Your task to perform on an android device: make emails show in primary in the gmail app Image 0: 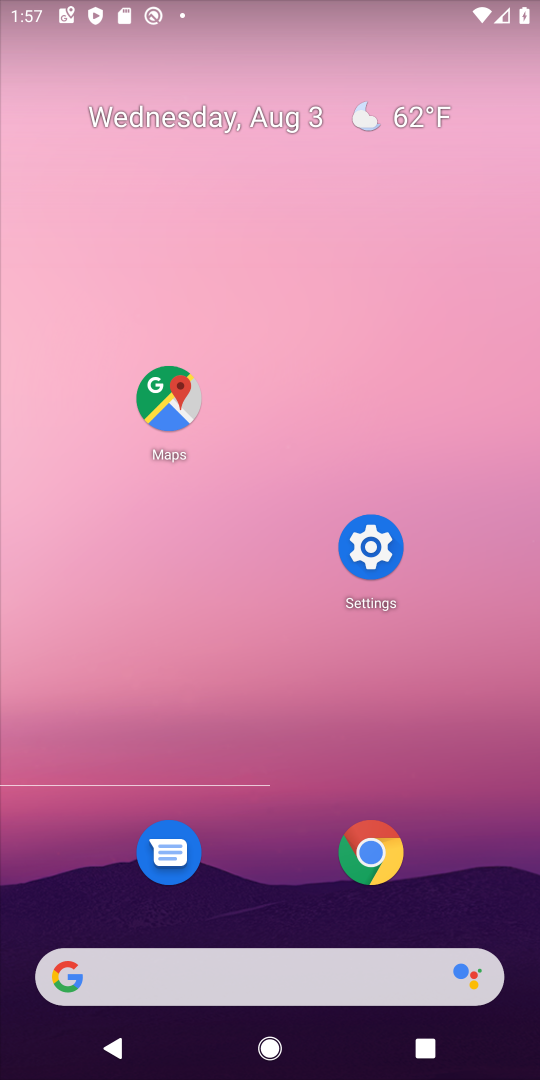
Step 0: press home button
Your task to perform on an android device: make emails show in primary in the gmail app Image 1: 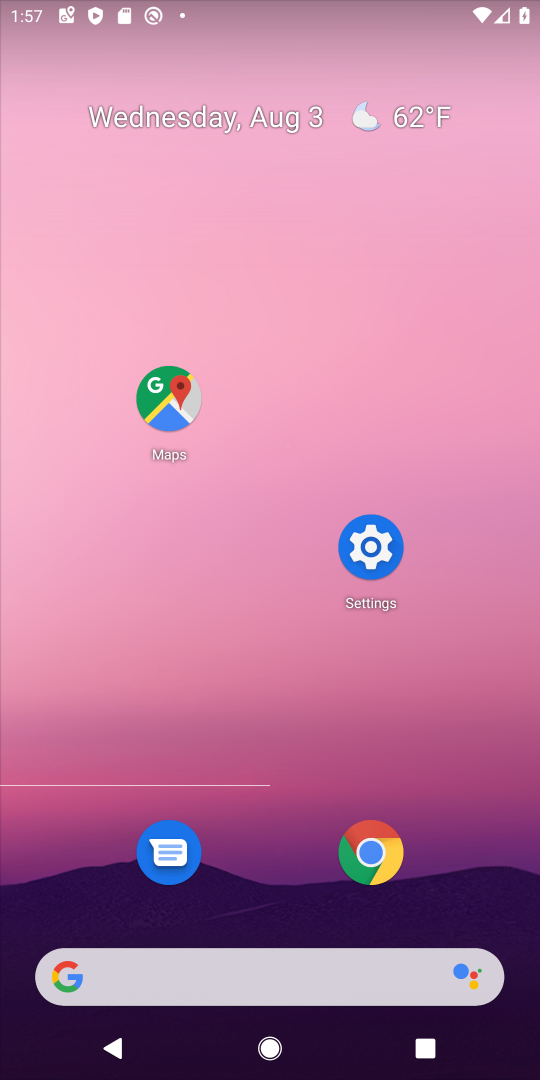
Step 1: drag from (306, 976) to (420, 111)
Your task to perform on an android device: make emails show in primary in the gmail app Image 2: 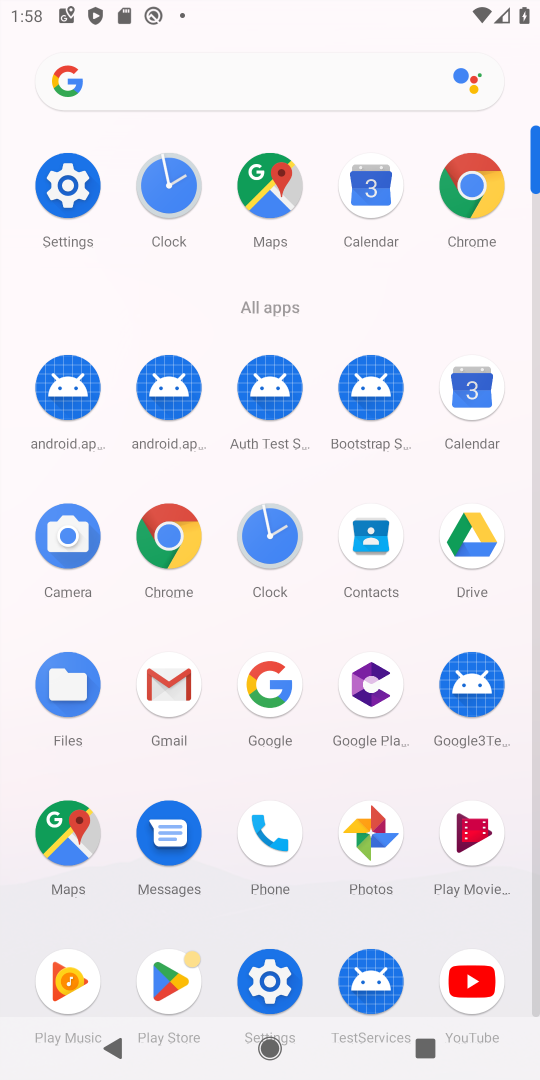
Step 2: click (163, 684)
Your task to perform on an android device: make emails show in primary in the gmail app Image 3: 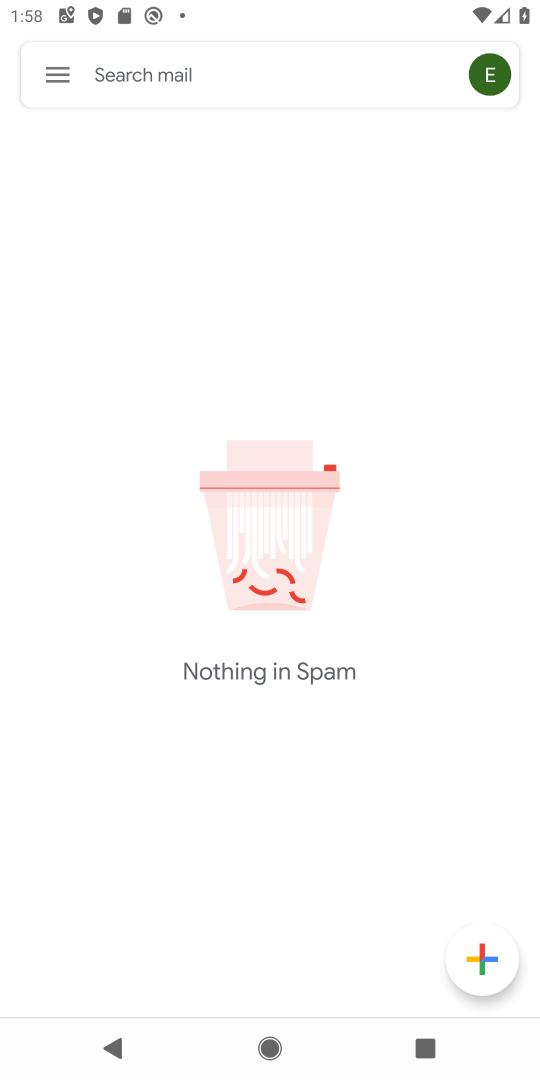
Step 3: click (58, 74)
Your task to perform on an android device: make emails show in primary in the gmail app Image 4: 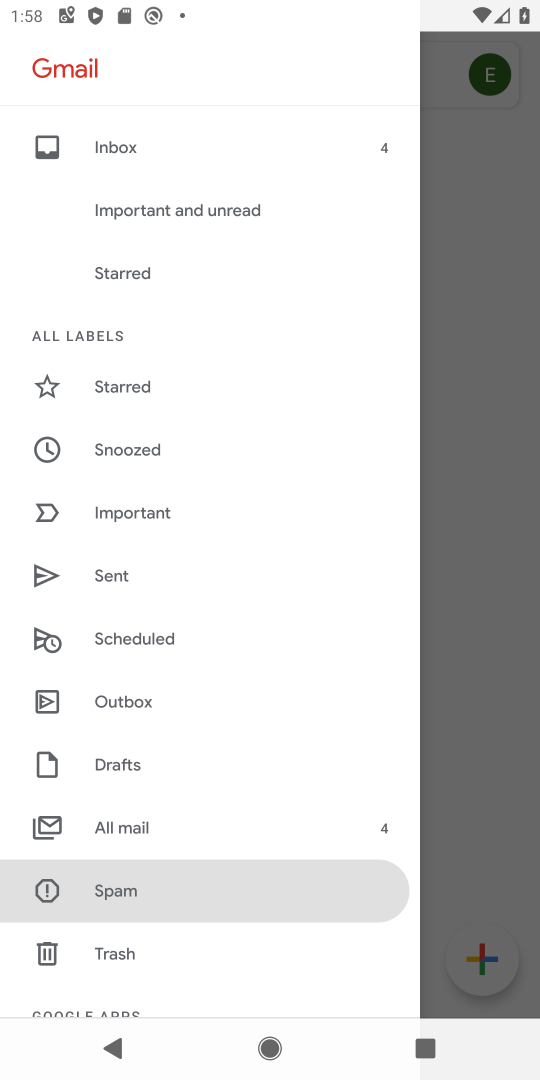
Step 4: drag from (197, 841) to (358, 95)
Your task to perform on an android device: make emails show in primary in the gmail app Image 5: 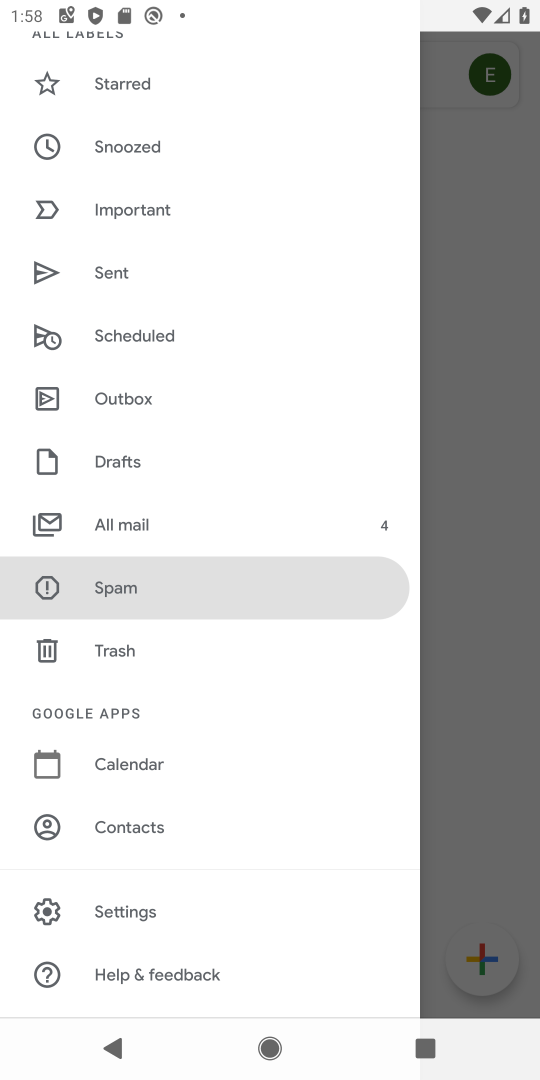
Step 5: click (156, 907)
Your task to perform on an android device: make emails show in primary in the gmail app Image 6: 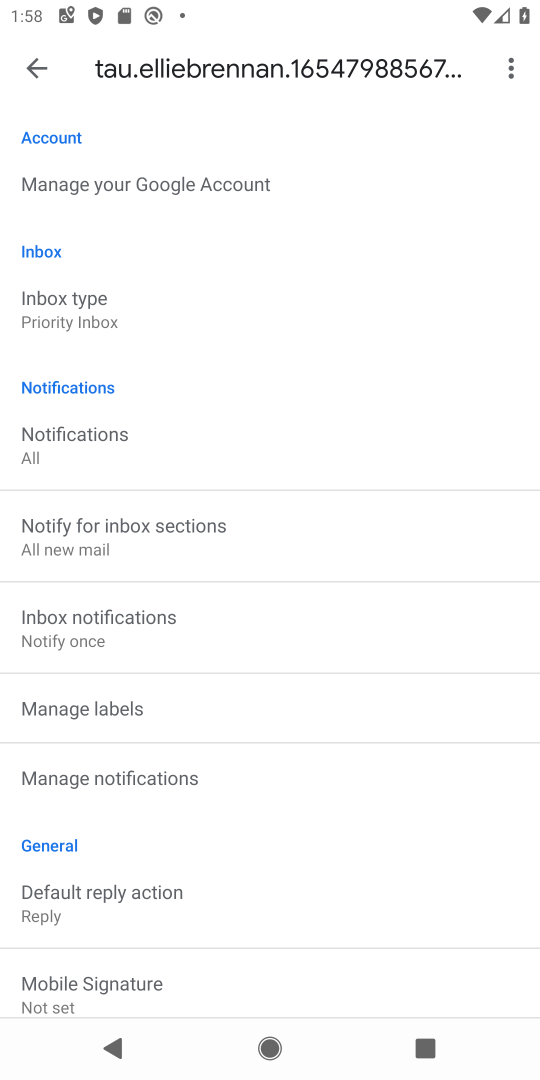
Step 6: task complete